Your task to perform on an android device: open chrome privacy settings Image 0: 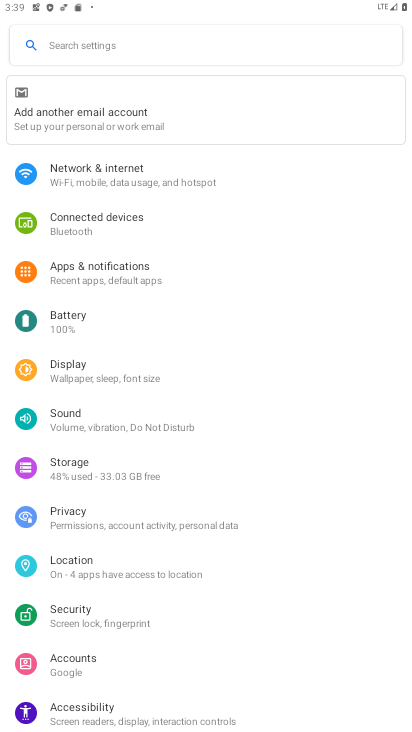
Step 0: press home button
Your task to perform on an android device: open chrome privacy settings Image 1: 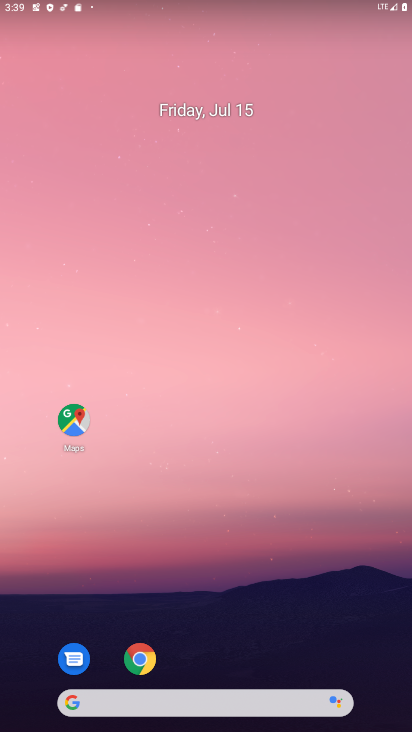
Step 1: drag from (177, 433) to (164, 187)
Your task to perform on an android device: open chrome privacy settings Image 2: 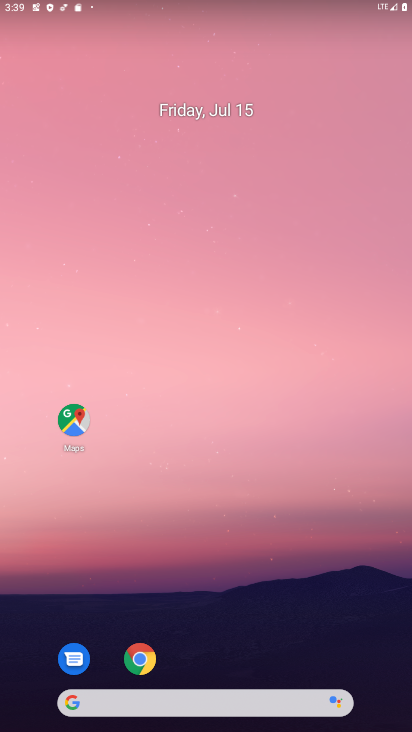
Step 2: drag from (187, 659) to (221, 187)
Your task to perform on an android device: open chrome privacy settings Image 3: 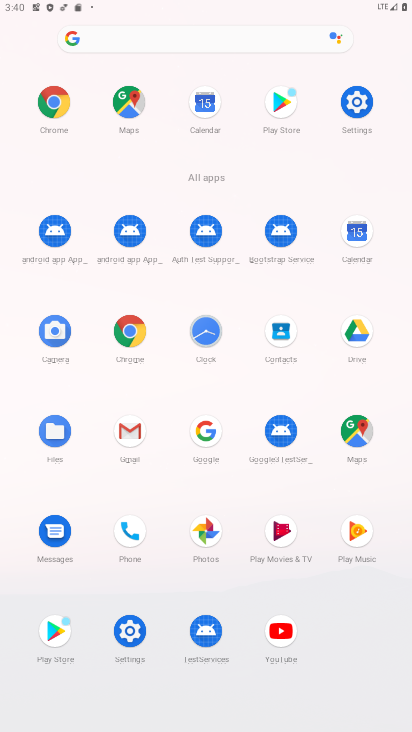
Step 3: click (62, 124)
Your task to perform on an android device: open chrome privacy settings Image 4: 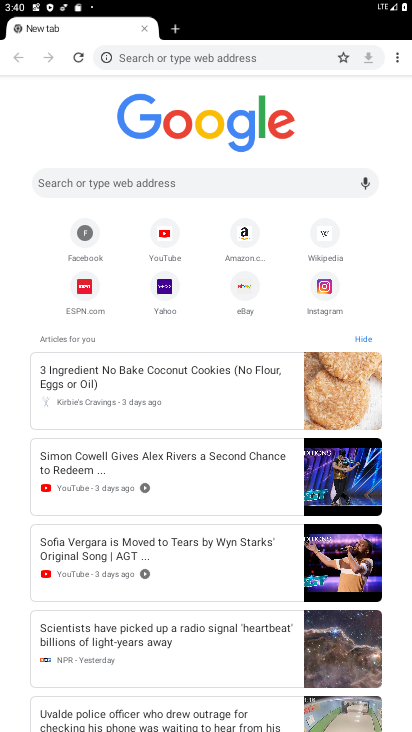
Step 4: click (400, 55)
Your task to perform on an android device: open chrome privacy settings Image 5: 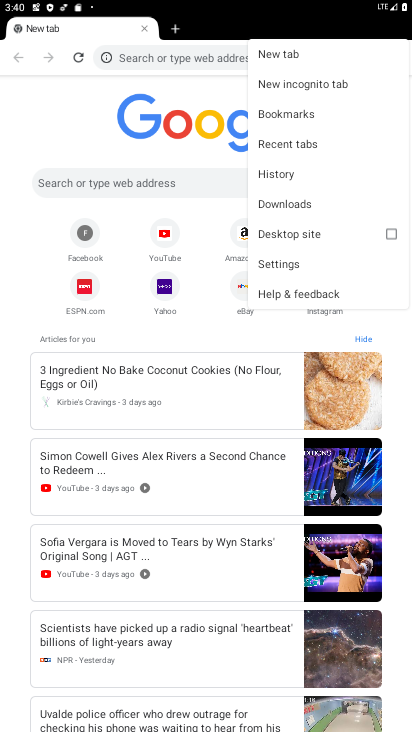
Step 5: click (287, 263)
Your task to perform on an android device: open chrome privacy settings Image 6: 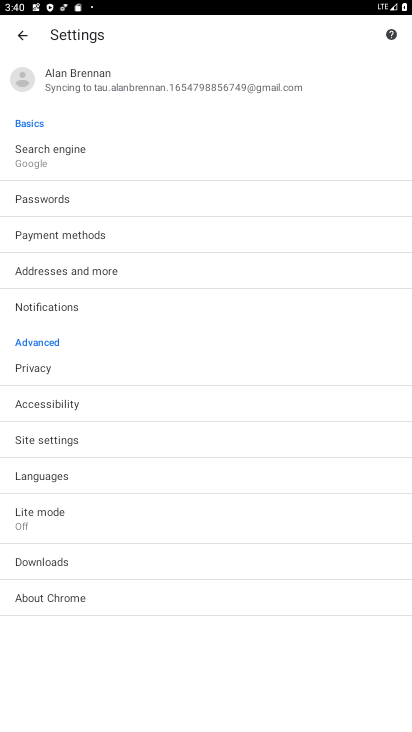
Step 6: click (38, 367)
Your task to perform on an android device: open chrome privacy settings Image 7: 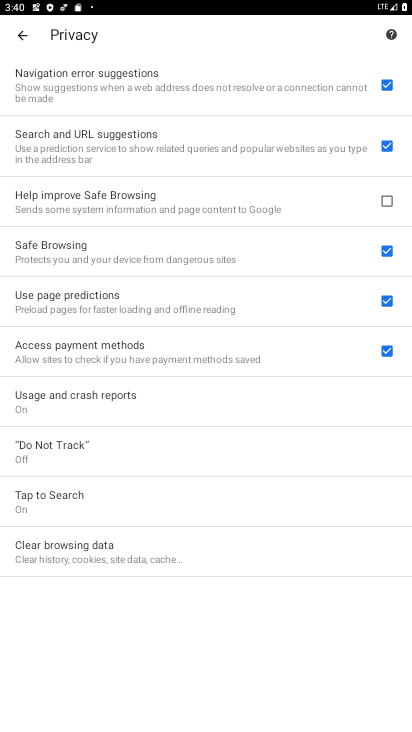
Step 7: task complete